Your task to perform on an android device: Open settings on Google Maps Image 0: 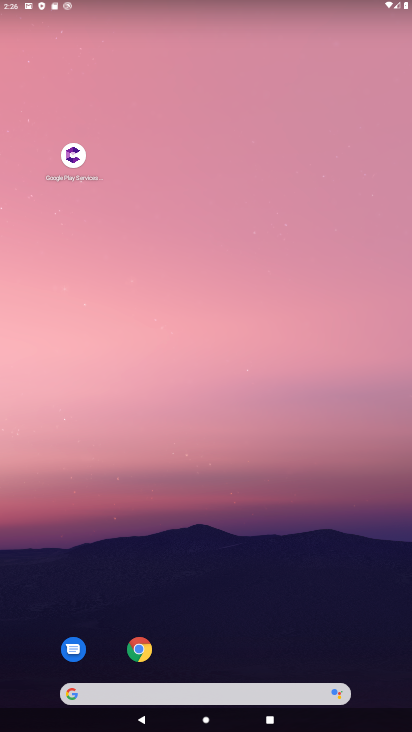
Step 0: drag from (269, 577) to (337, 0)
Your task to perform on an android device: Open settings on Google Maps Image 1: 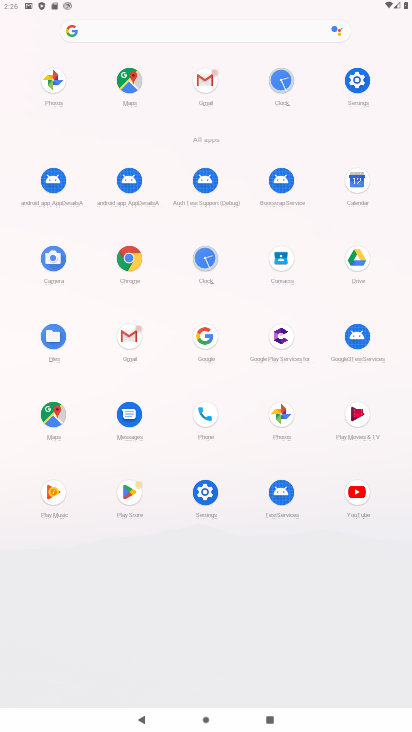
Step 1: click (123, 90)
Your task to perform on an android device: Open settings on Google Maps Image 2: 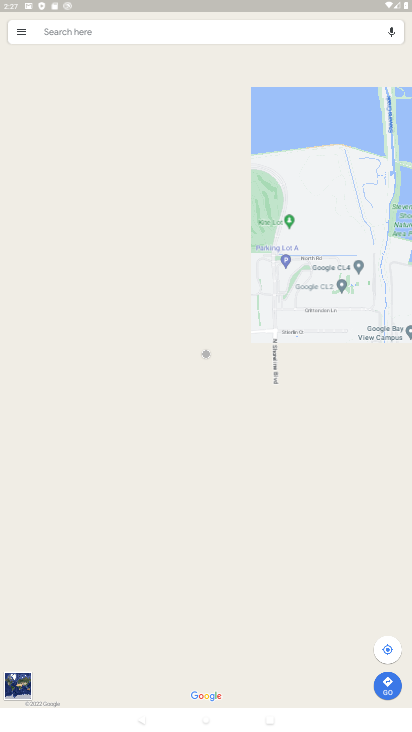
Step 2: click (21, 32)
Your task to perform on an android device: Open settings on Google Maps Image 3: 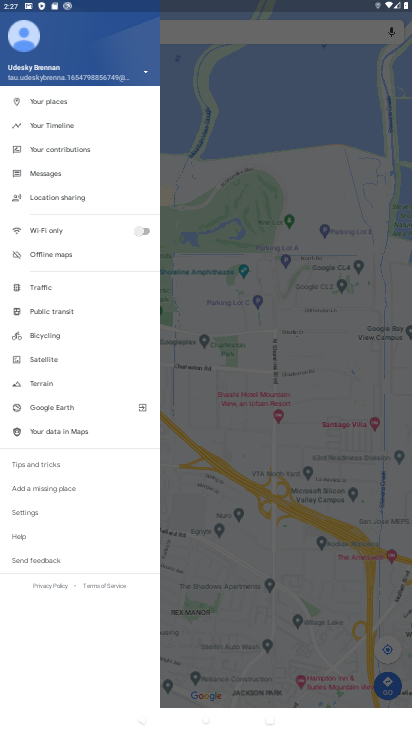
Step 3: click (39, 518)
Your task to perform on an android device: Open settings on Google Maps Image 4: 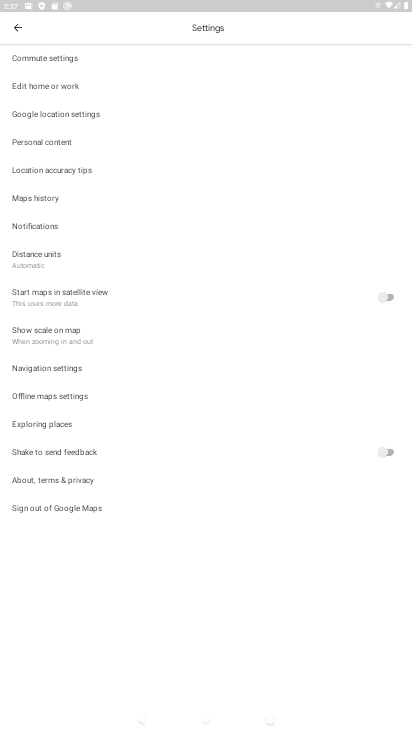
Step 4: task complete